Your task to perform on an android device: turn pop-ups off in chrome Image 0: 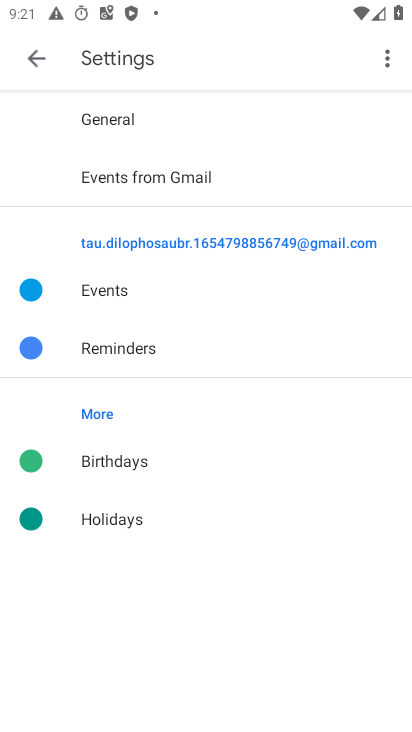
Step 0: press home button
Your task to perform on an android device: turn pop-ups off in chrome Image 1: 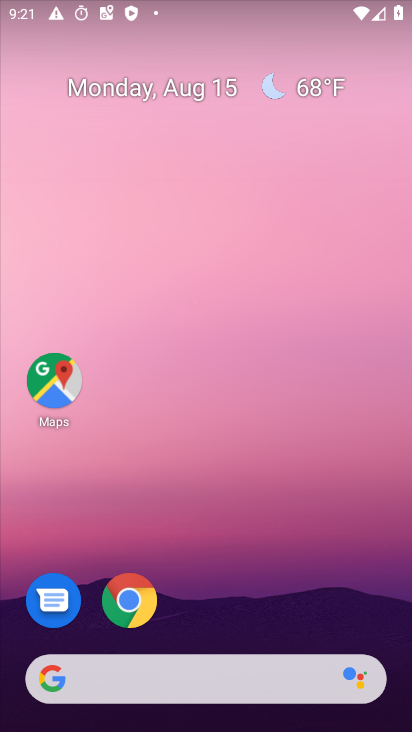
Step 1: click (134, 602)
Your task to perform on an android device: turn pop-ups off in chrome Image 2: 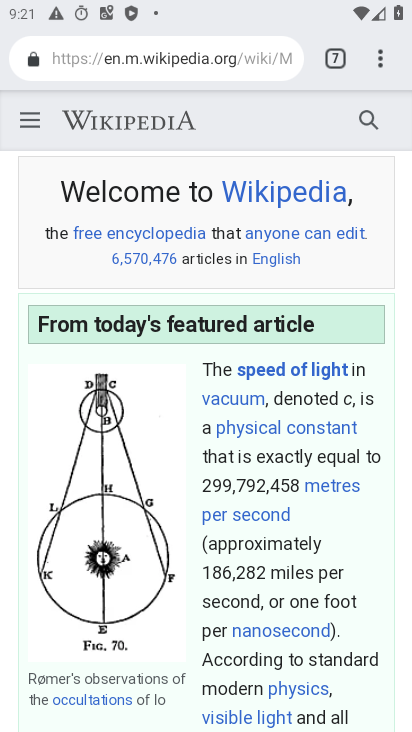
Step 2: click (383, 64)
Your task to perform on an android device: turn pop-ups off in chrome Image 3: 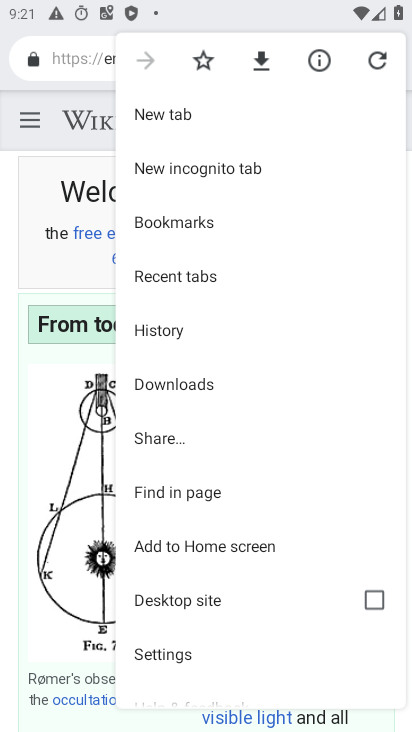
Step 3: click (175, 655)
Your task to perform on an android device: turn pop-ups off in chrome Image 4: 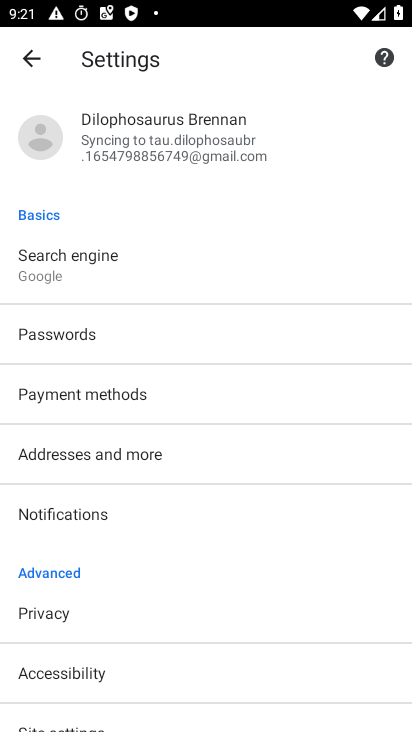
Step 4: drag from (126, 656) to (153, 286)
Your task to perform on an android device: turn pop-ups off in chrome Image 5: 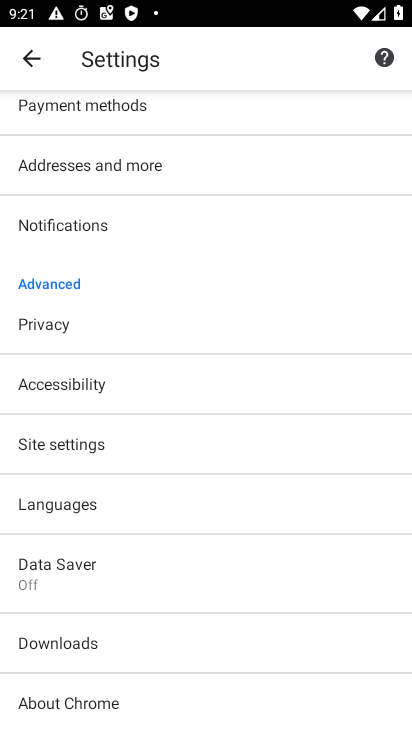
Step 5: click (81, 446)
Your task to perform on an android device: turn pop-ups off in chrome Image 6: 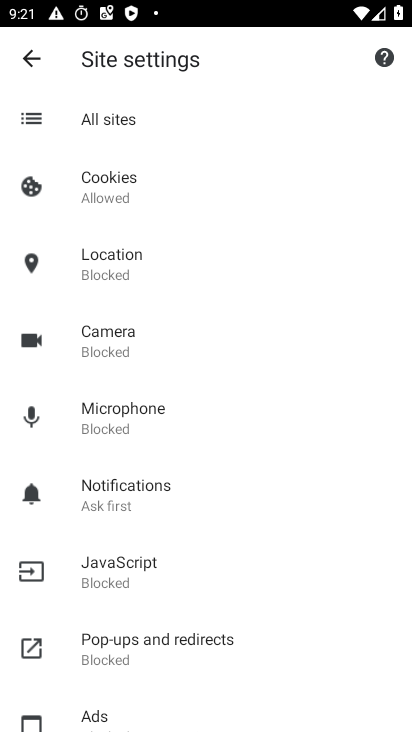
Step 6: click (110, 648)
Your task to perform on an android device: turn pop-ups off in chrome Image 7: 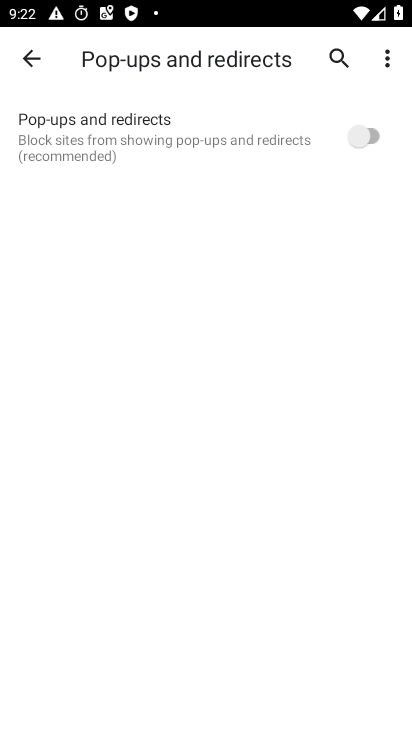
Step 7: task complete